Your task to perform on an android device: Go to display settings Image 0: 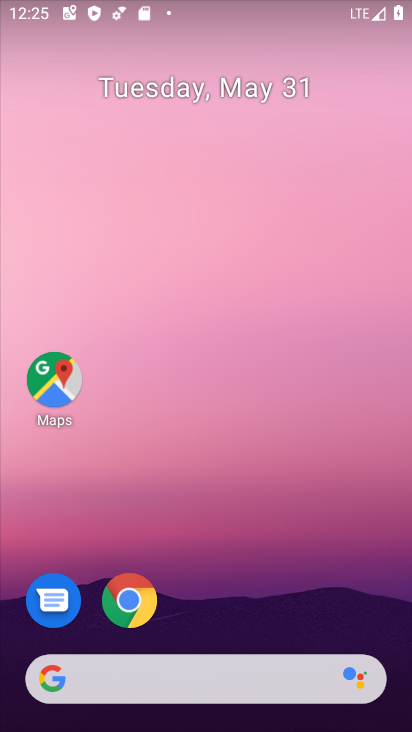
Step 0: click (211, 726)
Your task to perform on an android device: Go to display settings Image 1: 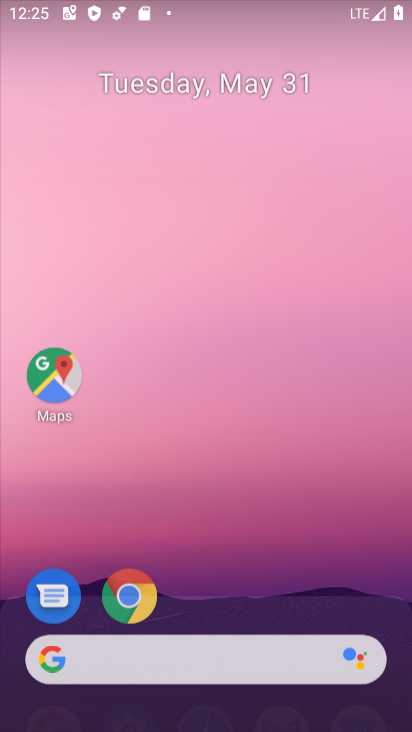
Step 1: drag from (211, 284) to (201, 122)
Your task to perform on an android device: Go to display settings Image 2: 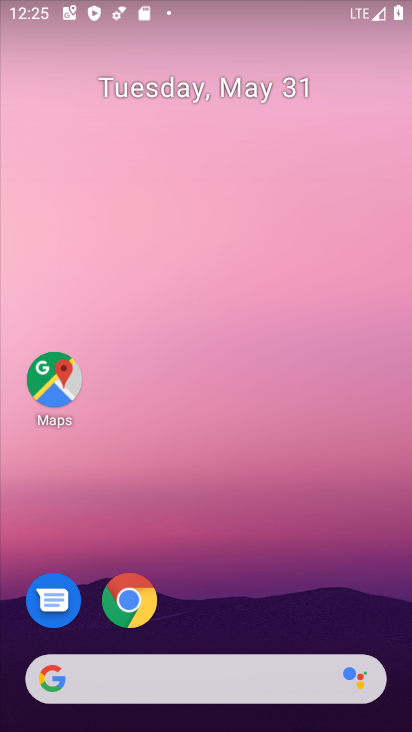
Step 2: drag from (238, 719) to (221, 155)
Your task to perform on an android device: Go to display settings Image 3: 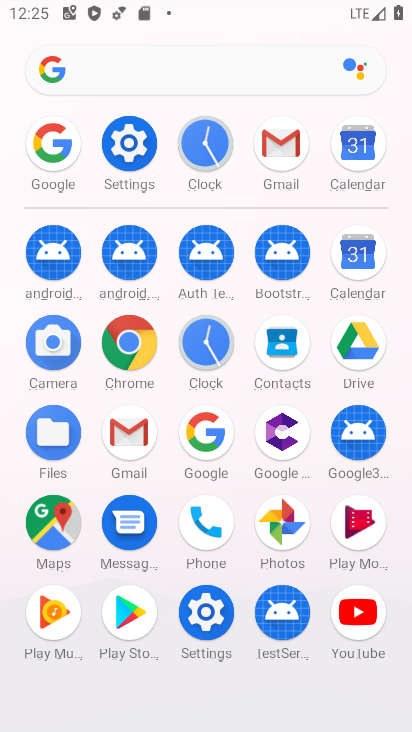
Step 3: click (126, 143)
Your task to perform on an android device: Go to display settings Image 4: 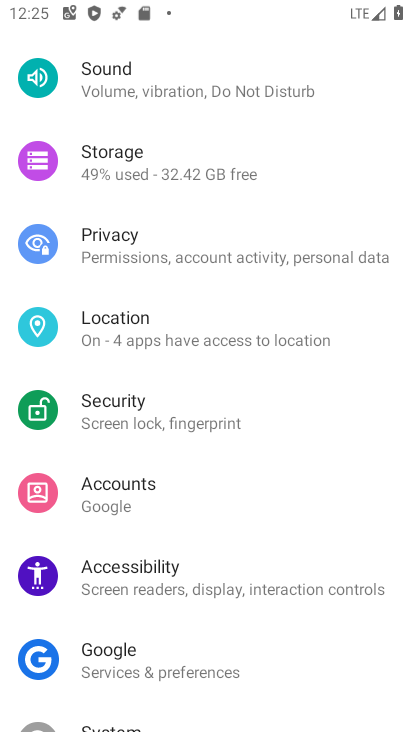
Step 4: drag from (169, 119) to (155, 581)
Your task to perform on an android device: Go to display settings Image 5: 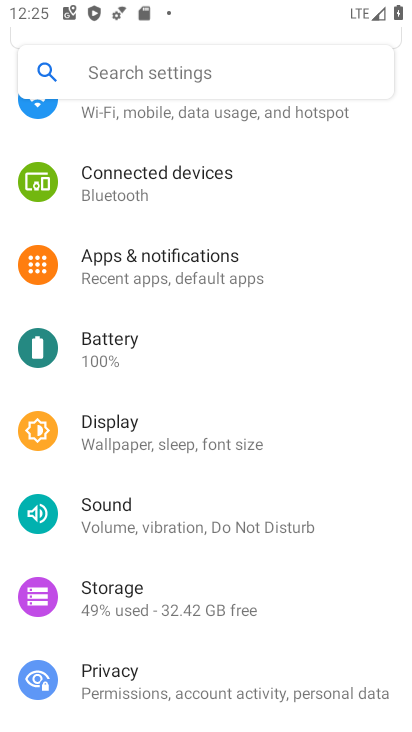
Step 5: click (98, 437)
Your task to perform on an android device: Go to display settings Image 6: 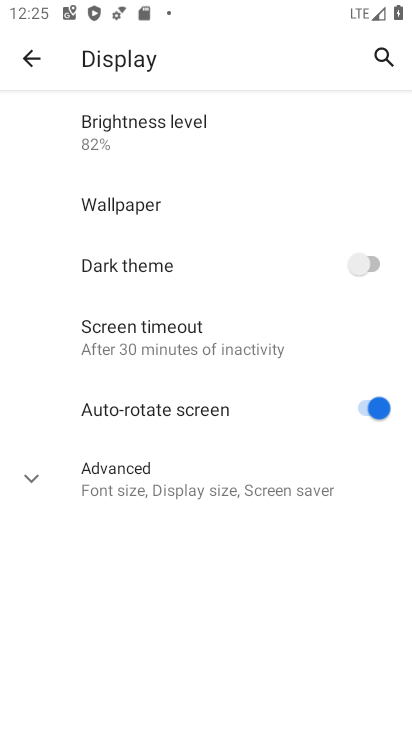
Step 6: task complete